Your task to perform on an android device: change the clock style Image 0: 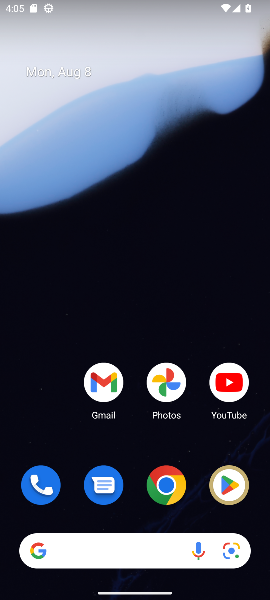
Step 0: drag from (179, 566) to (132, 139)
Your task to perform on an android device: change the clock style Image 1: 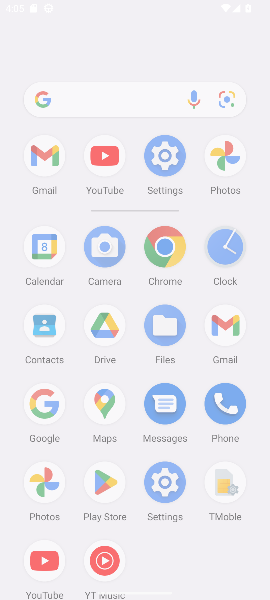
Step 1: drag from (133, 365) to (48, 85)
Your task to perform on an android device: change the clock style Image 2: 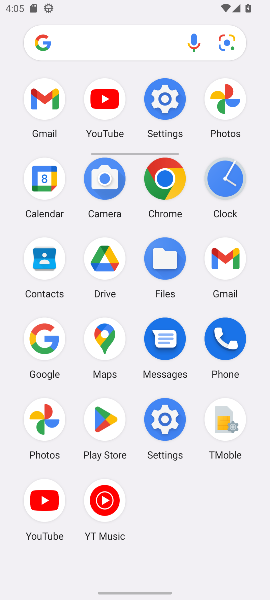
Step 2: drag from (106, 455) to (68, 8)
Your task to perform on an android device: change the clock style Image 3: 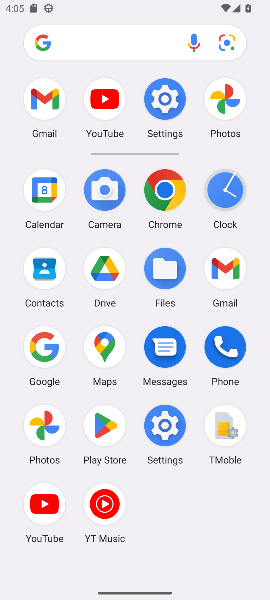
Step 3: click (226, 192)
Your task to perform on an android device: change the clock style Image 4: 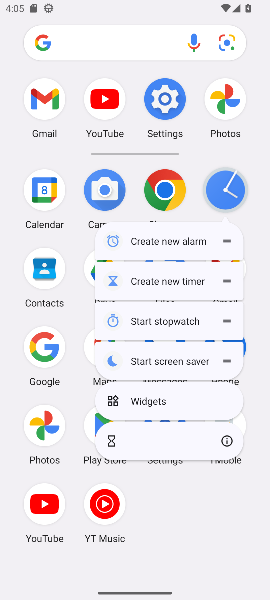
Step 4: click (226, 192)
Your task to perform on an android device: change the clock style Image 5: 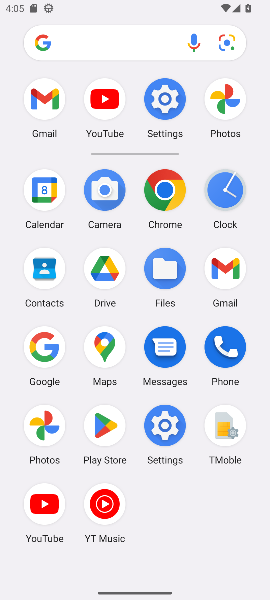
Step 5: click (237, 203)
Your task to perform on an android device: change the clock style Image 6: 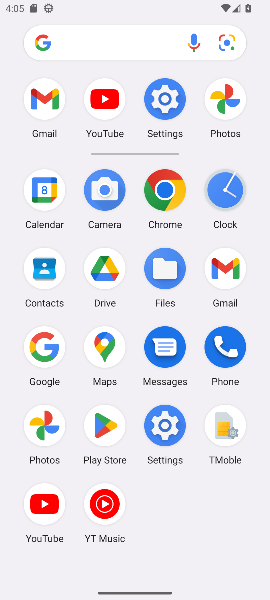
Step 6: click (234, 202)
Your task to perform on an android device: change the clock style Image 7: 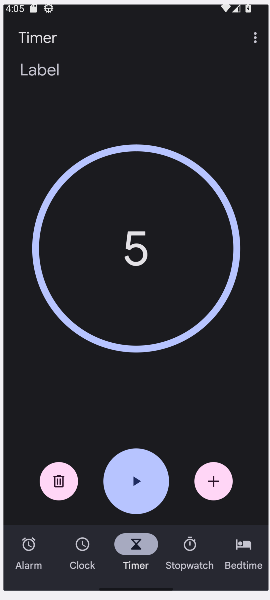
Step 7: click (221, 192)
Your task to perform on an android device: change the clock style Image 8: 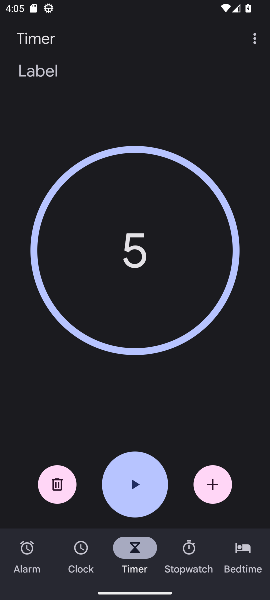
Step 8: click (23, 555)
Your task to perform on an android device: change the clock style Image 9: 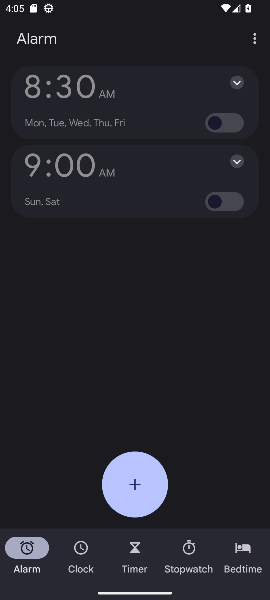
Step 9: click (257, 40)
Your task to perform on an android device: change the clock style Image 10: 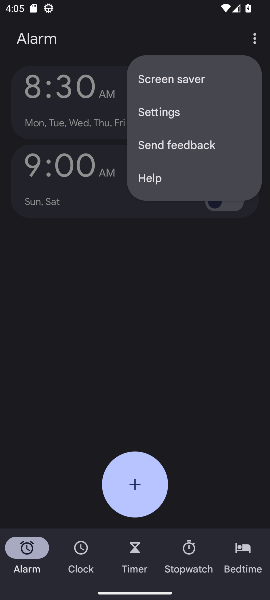
Step 10: click (171, 107)
Your task to perform on an android device: change the clock style Image 11: 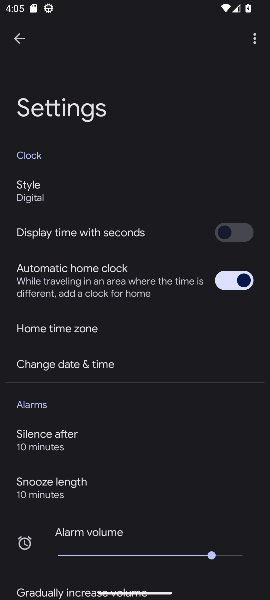
Step 11: click (43, 187)
Your task to perform on an android device: change the clock style Image 12: 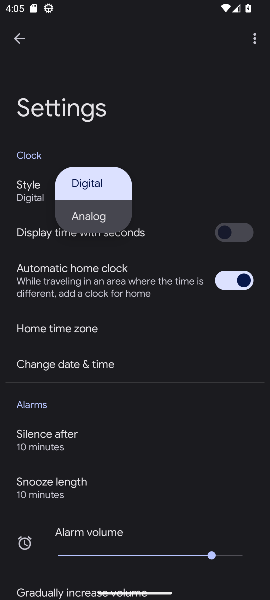
Step 12: click (91, 212)
Your task to perform on an android device: change the clock style Image 13: 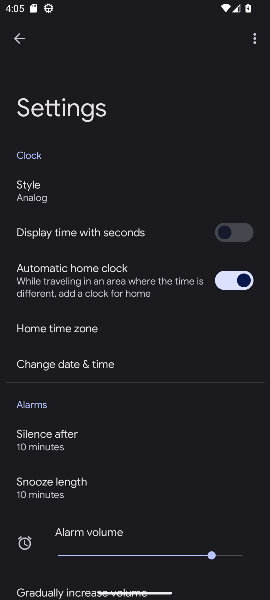
Step 13: task complete